Your task to perform on an android device: find photos in the google photos app Image 0: 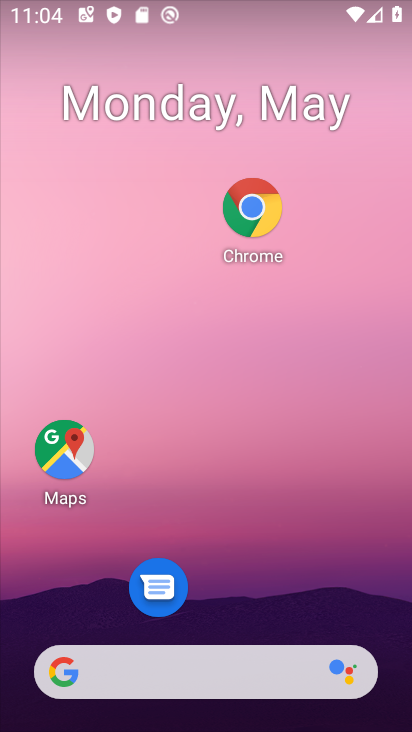
Step 0: drag from (205, 678) to (72, 241)
Your task to perform on an android device: find photos in the google photos app Image 1: 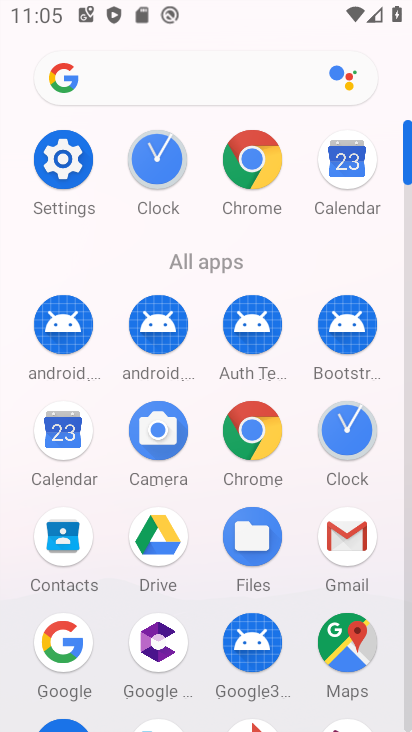
Step 1: drag from (291, 655) to (241, 214)
Your task to perform on an android device: find photos in the google photos app Image 2: 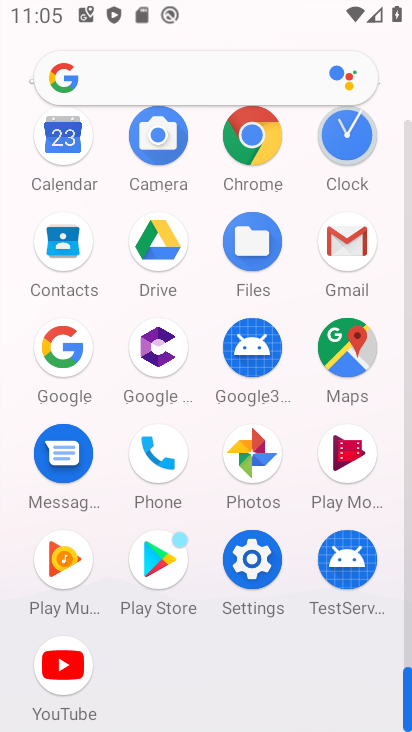
Step 2: drag from (267, 501) to (242, 308)
Your task to perform on an android device: find photos in the google photos app Image 3: 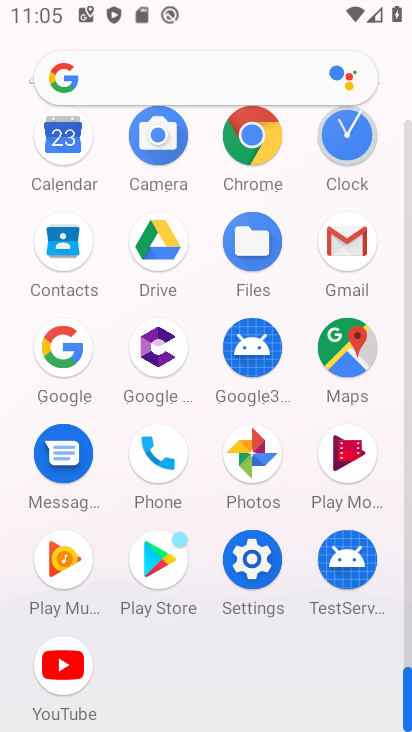
Step 3: click (265, 456)
Your task to perform on an android device: find photos in the google photos app Image 4: 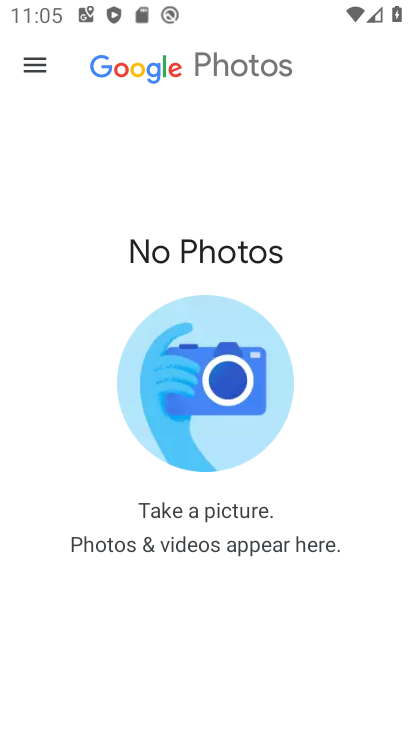
Step 4: click (194, 392)
Your task to perform on an android device: find photos in the google photos app Image 5: 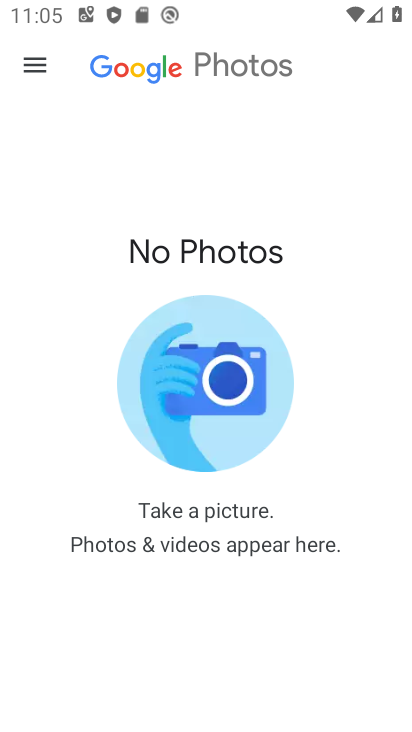
Step 5: click (220, 396)
Your task to perform on an android device: find photos in the google photos app Image 6: 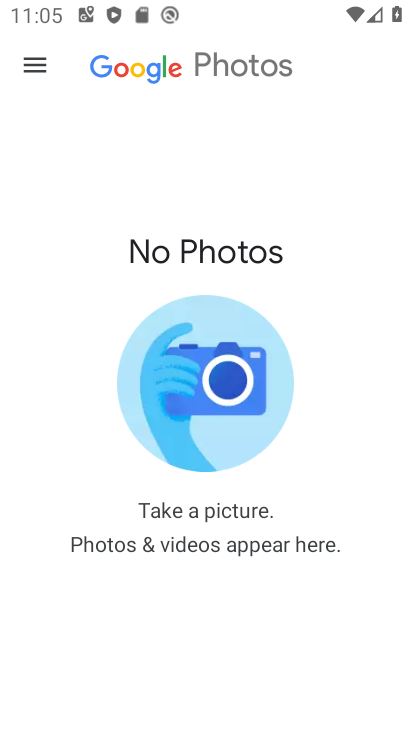
Step 6: click (220, 396)
Your task to perform on an android device: find photos in the google photos app Image 7: 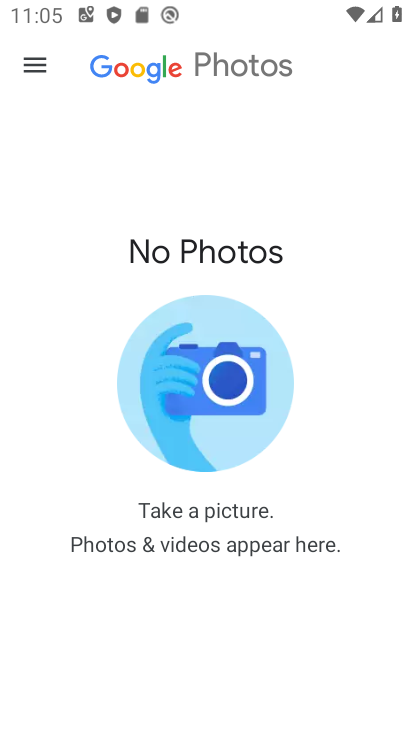
Step 7: click (220, 396)
Your task to perform on an android device: find photos in the google photos app Image 8: 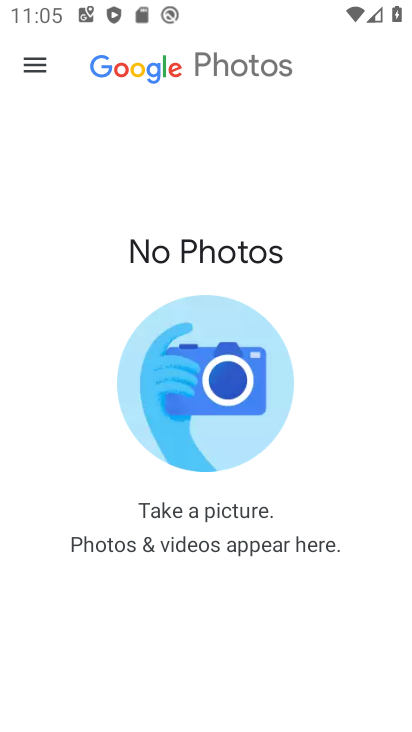
Step 8: click (220, 396)
Your task to perform on an android device: find photos in the google photos app Image 9: 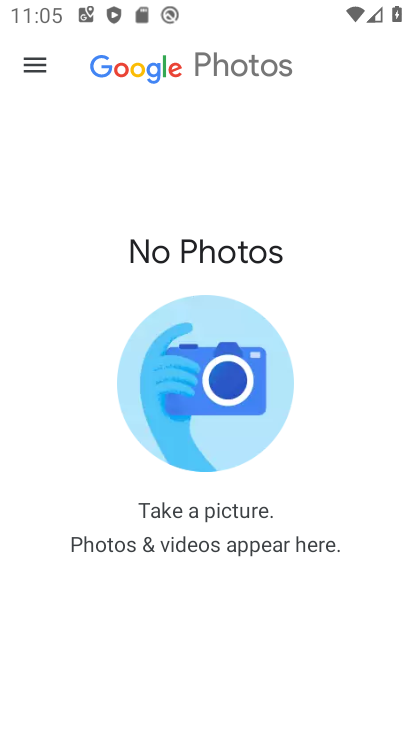
Step 9: task complete